Your task to perform on an android device: What's the weather going to be tomorrow? Image 0: 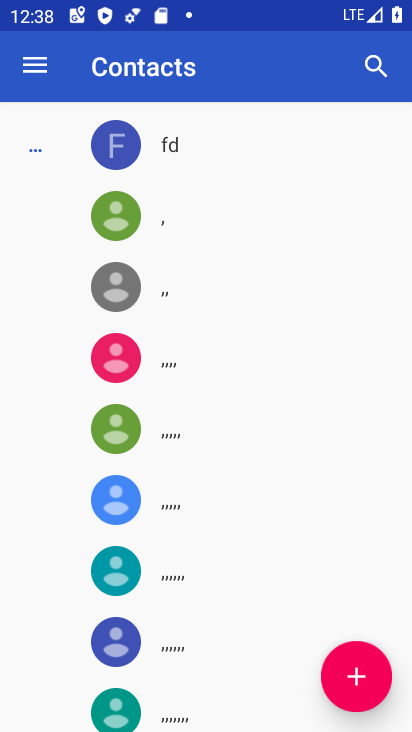
Step 0: press home button
Your task to perform on an android device: What's the weather going to be tomorrow? Image 1: 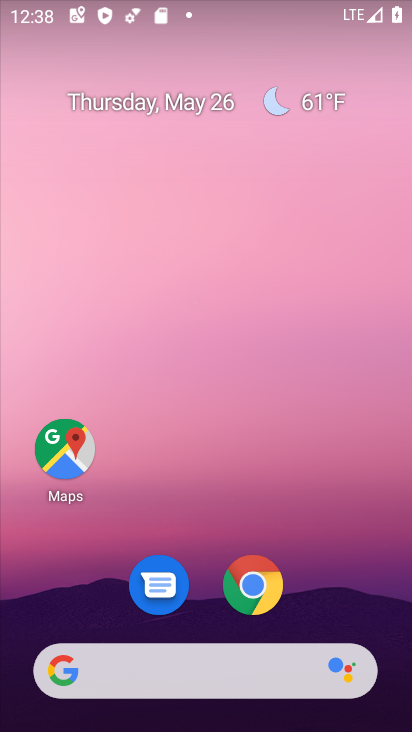
Step 1: click (198, 666)
Your task to perform on an android device: What's the weather going to be tomorrow? Image 2: 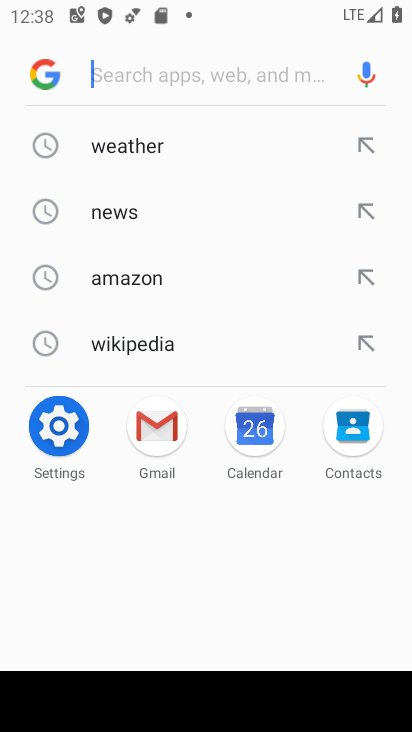
Step 2: click (142, 147)
Your task to perform on an android device: What's the weather going to be tomorrow? Image 3: 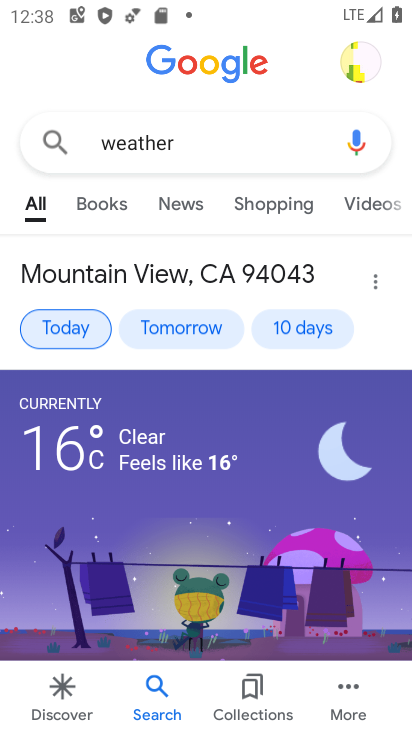
Step 3: click (78, 319)
Your task to perform on an android device: What's the weather going to be tomorrow? Image 4: 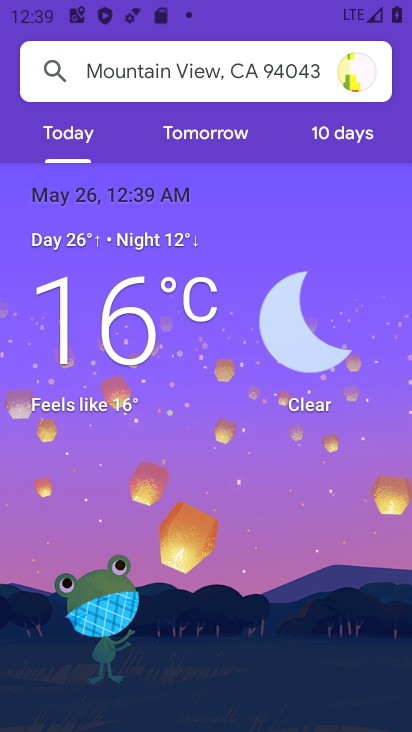
Step 4: click (181, 129)
Your task to perform on an android device: What's the weather going to be tomorrow? Image 5: 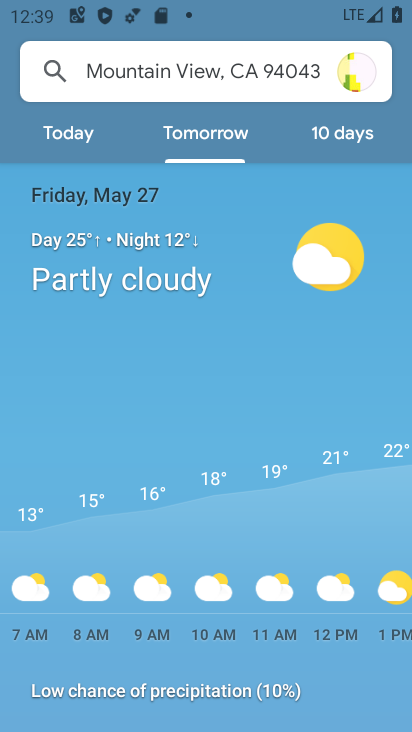
Step 5: task complete